Your task to perform on an android device: Toggle the flashlight Image 0: 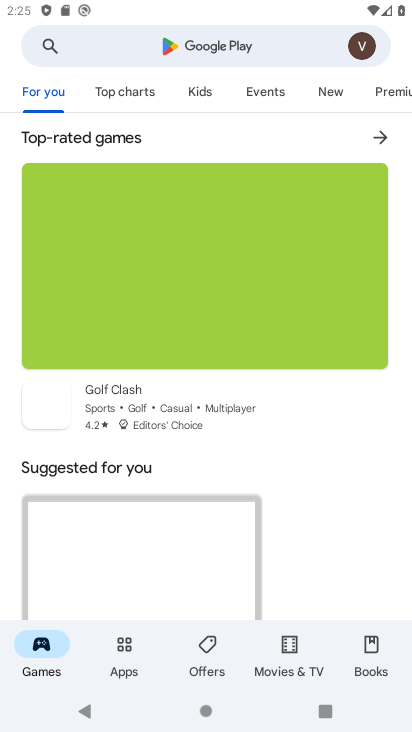
Step 0: press home button
Your task to perform on an android device: Toggle the flashlight Image 1: 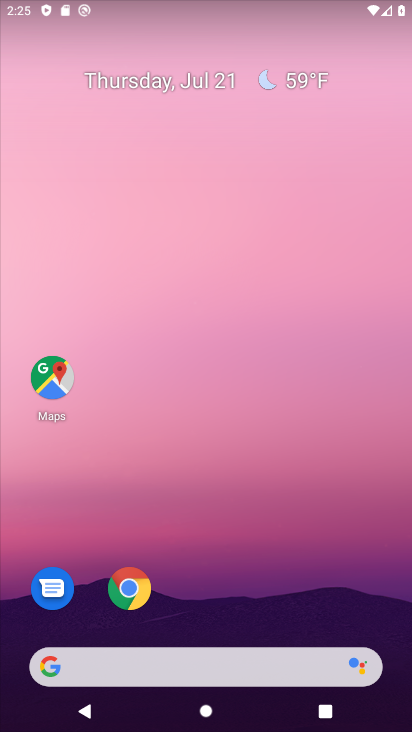
Step 1: drag from (404, 698) to (322, 140)
Your task to perform on an android device: Toggle the flashlight Image 2: 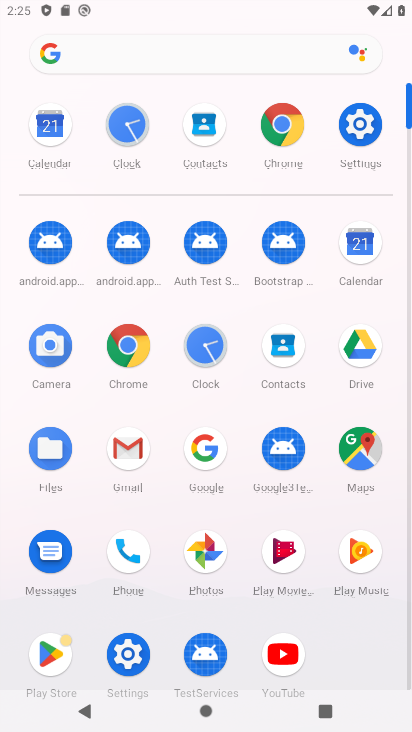
Step 2: click (361, 135)
Your task to perform on an android device: Toggle the flashlight Image 3: 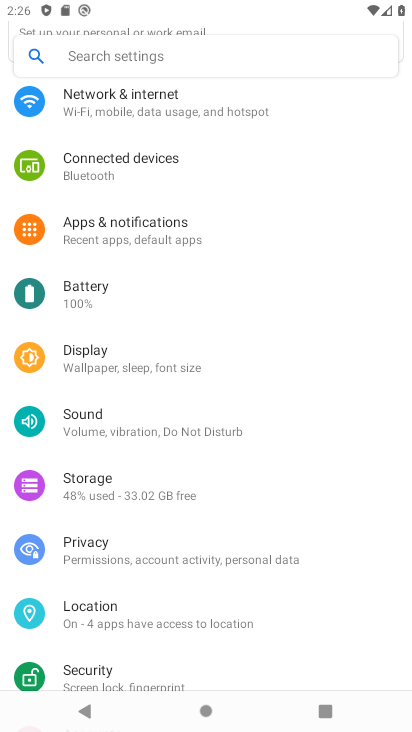
Step 3: click (86, 358)
Your task to perform on an android device: Toggle the flashlight Image 4: 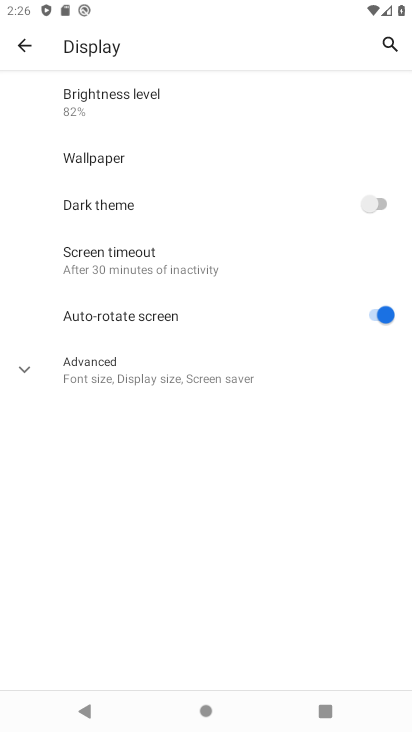
Step 4: click (16, 364)
Your task to perform on an android device: Toggle the flashlight Image 5: 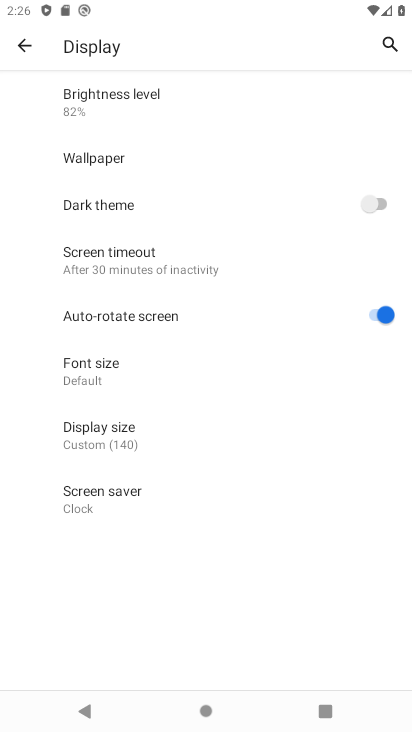
Step 5: task complete